Your task to perform on an android device: Go to privacy settings Image 0: 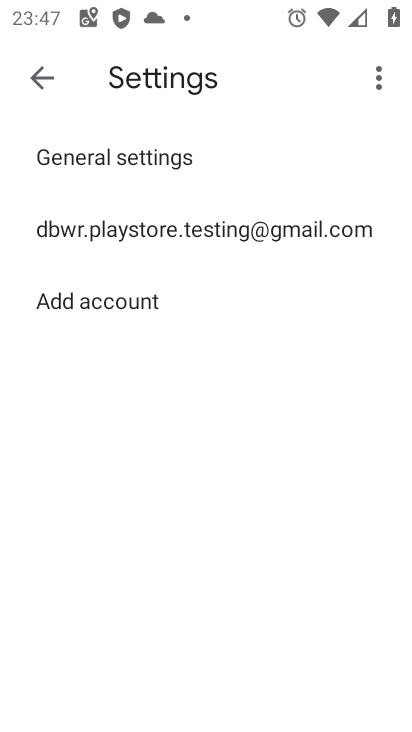
Step 0: press home button
Your task to perform on an android device: Go to privacy settings Image 1: 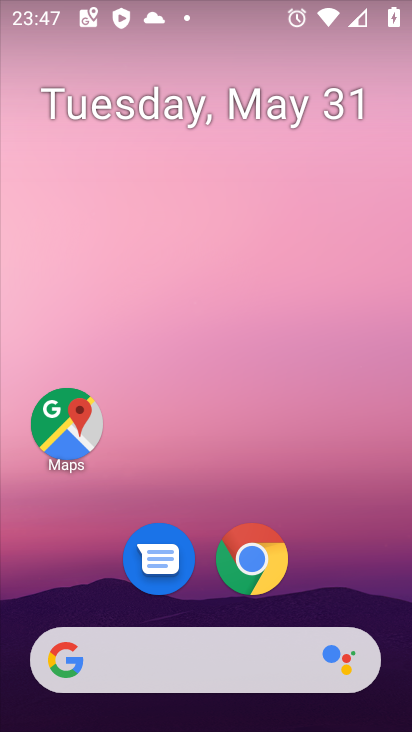
Step 1: click (250, 570)
Your task to perform on an android device: Go to privacy settings Image 2: 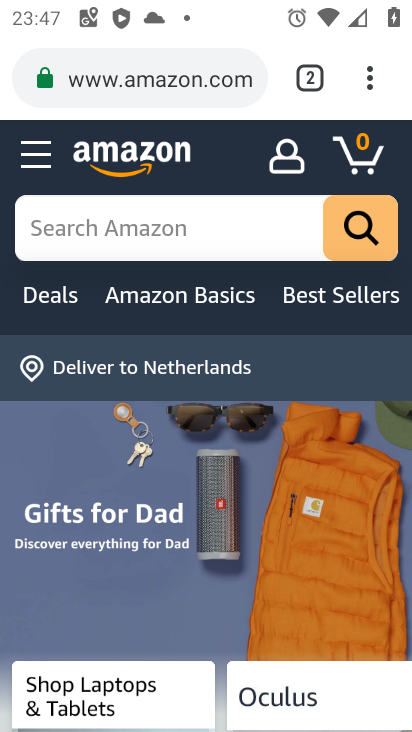
Step 2: click (359, 88)
Your task to perform on an android device: Go to privacy settings Image 3: 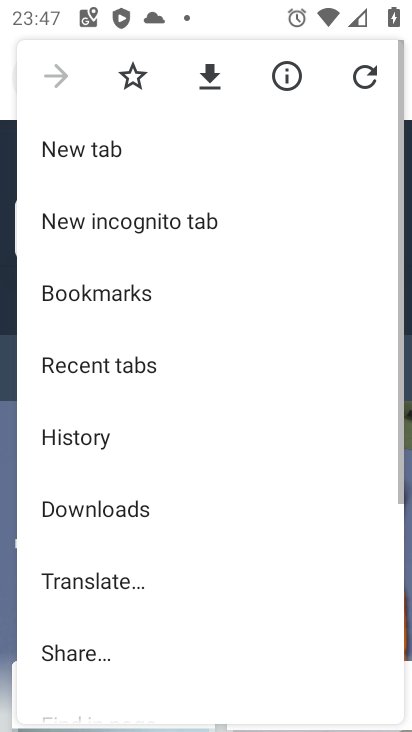
Step 3: drag from (198, 610) to (222, 71)
Your task to perform on an android device: Go to privacy settings Image 4: 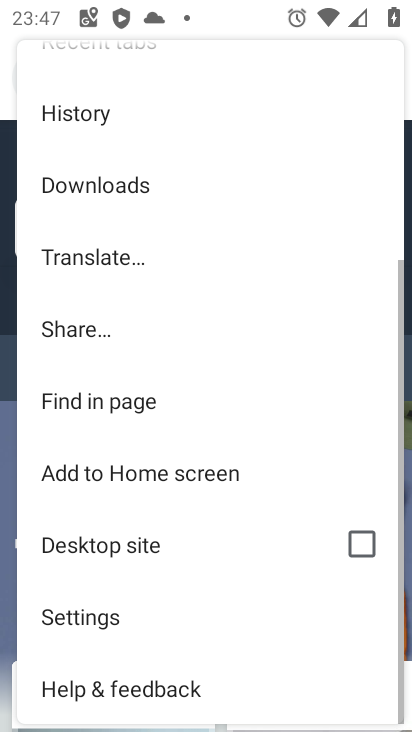
Step 4: click (116, 621)
Your task to perform on an android device: Go to privacy settings Image 5: 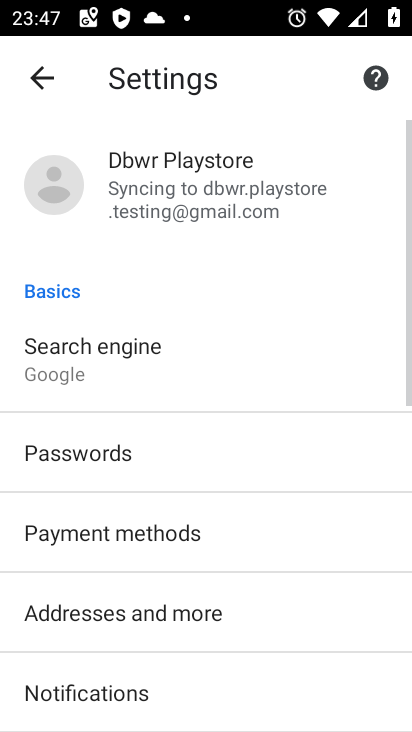
Step 5: drag from (172, 643) to (202, 142)
Your task to perform on an android device: Go to privacy settings Image 6: 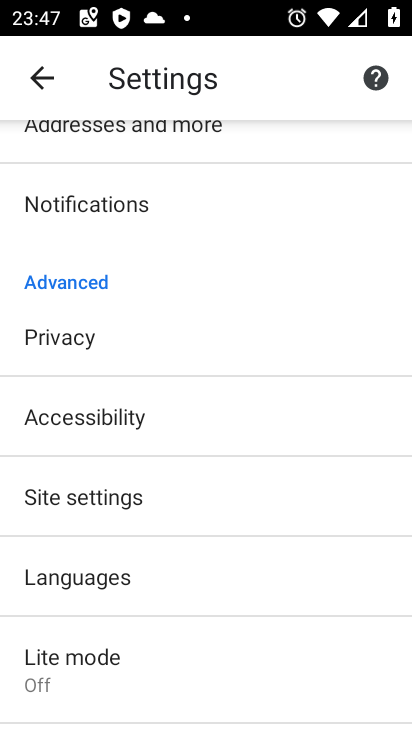
Step 6: click (86, 339)
Your task to perform on an android device: Go to privacy settings Image 7: 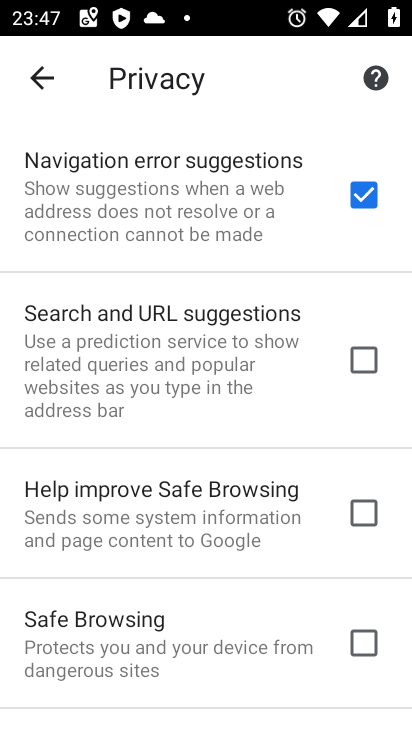
Step 7: task complete